Your task to perform on an android device: Is it going to rain this weekend? Image 0: 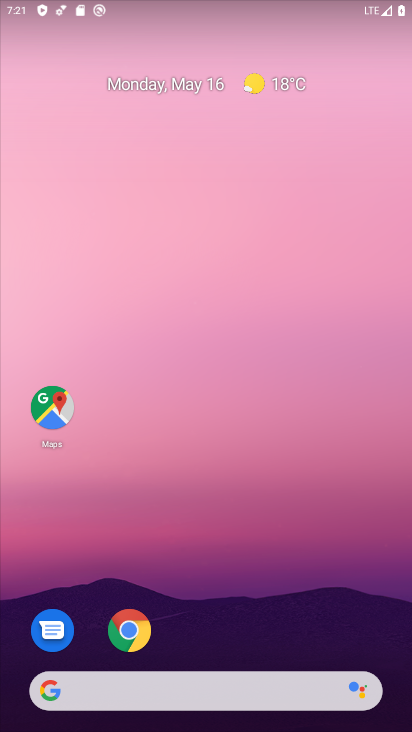
Step 0: drag from (237, 599) to (140, 128)
Your task to perform on an android device: Is it going to rain this weekend? Image 1: 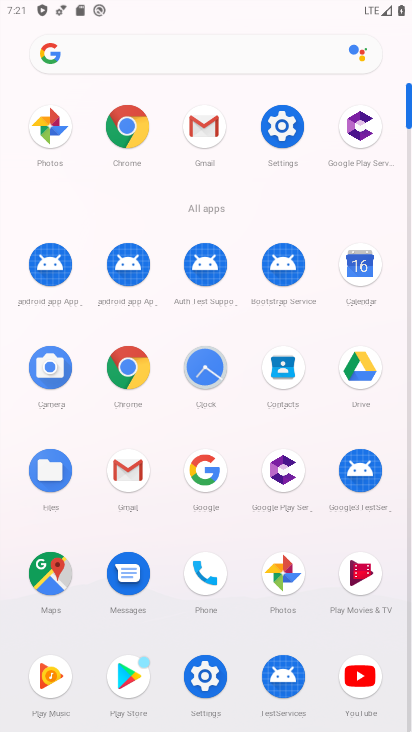
Step 1: click (203, 470)
Your task to perform on an android device: Is it going to rain this weekend? Image 2: 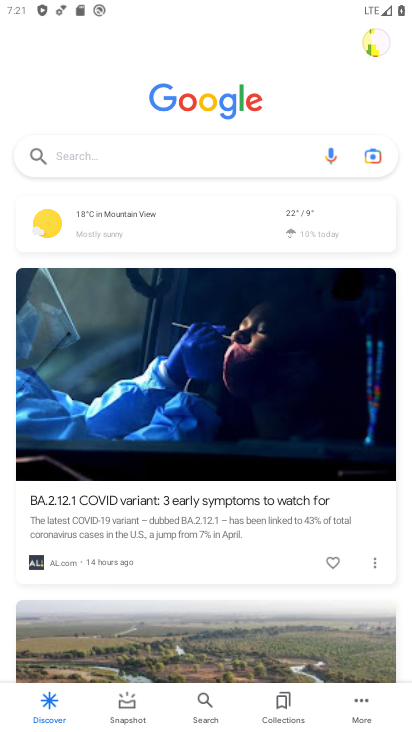
Step 2: click (156, 205)
Your task to perform on an android device: Is it going to rain this weekend? Image 3: 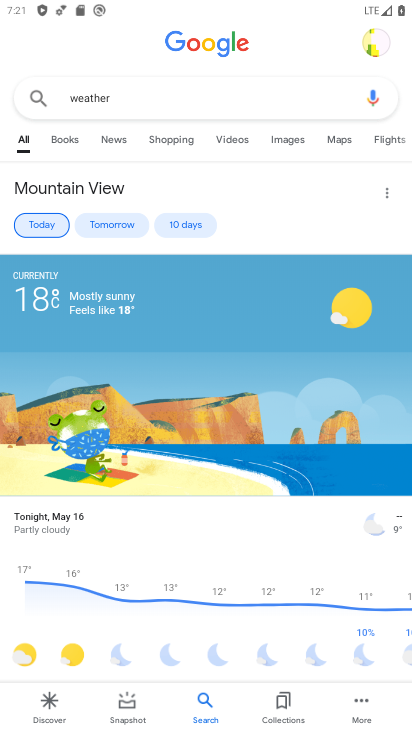
Step 3: click (179, 225)
Your task to perform on an android device: Is it going to rain this weekend? Image 4: 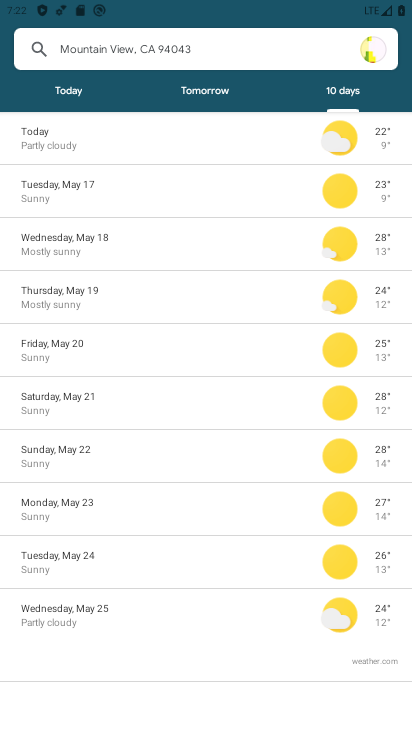
Step 4: task complete